Your task to perform on an android device: Find coffee shops on Maps Image 0: 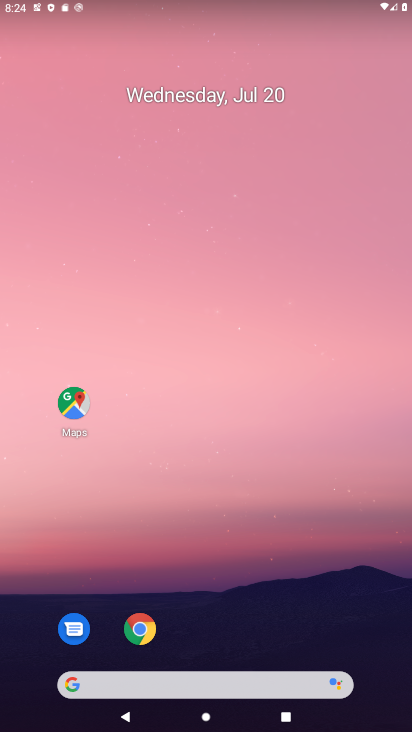
Step 0: drag from (261, 626) to (173, 209)
Your task to perform on an android device: Find coffee shops on Maps Image 1: 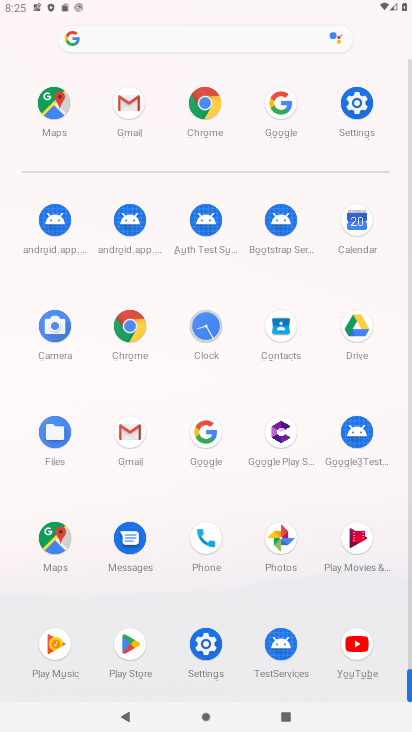
Step 1: click (70, 539)
Your task to perform on an android device: Find coffee shops on Maps Image 2: 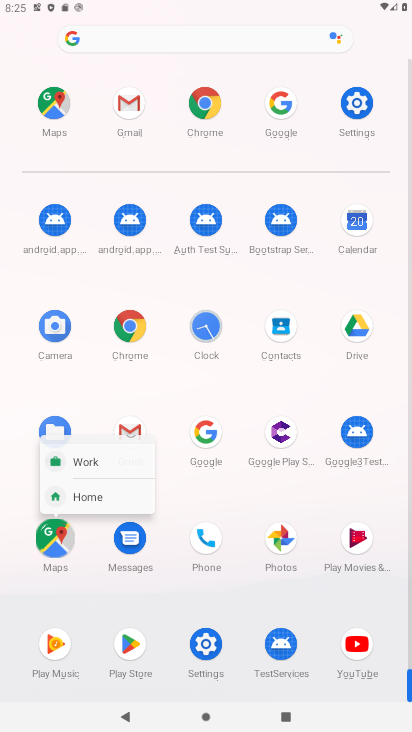
Step 2: click (55, 542)
Your task to perform on an android device: Find coffee shops on Maps Image 3: 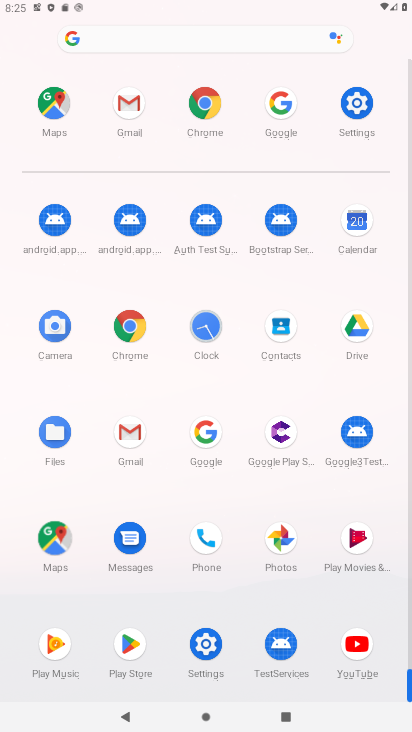
Step 3: click (53, 539)
Your task to perform on an android device: Find coffee shops on Maps Image 4: 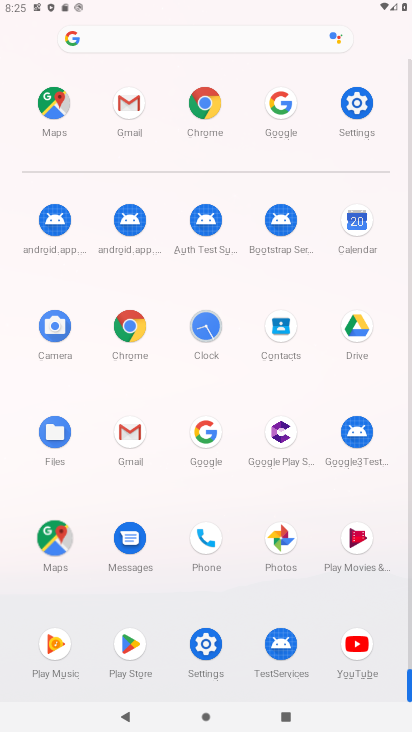
Step 4: click (51, 537)
Your task to perform on an android device: Find coffee shops on Maps Image 5: 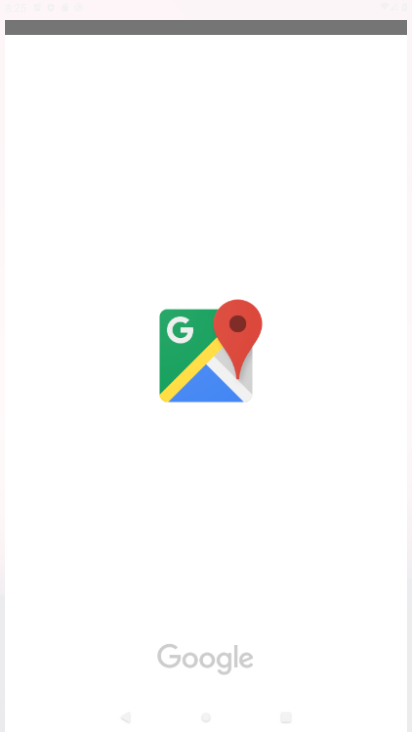
Step 5: click (54, 538)
Your task to perform on an android device: Find coffee shops on Maps Image 6: 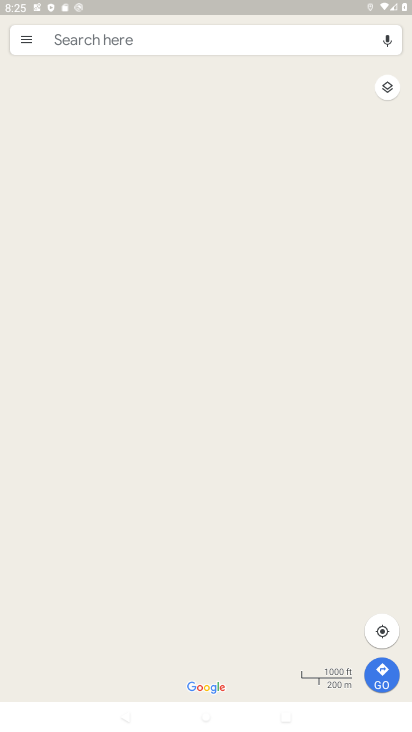
Step 6: click (91, 36)
Your task to perform on an android device: Find coffee shops on Maps Image 7: 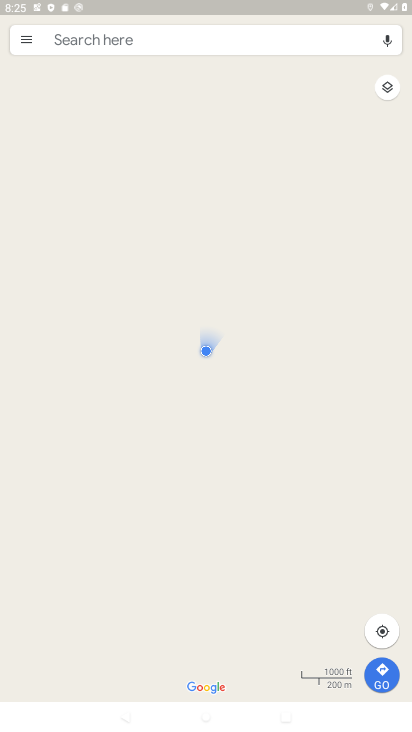
Step 7: click (91, 36)
Your task to perform on an android device: Find coffee shops on Maps Image 8: 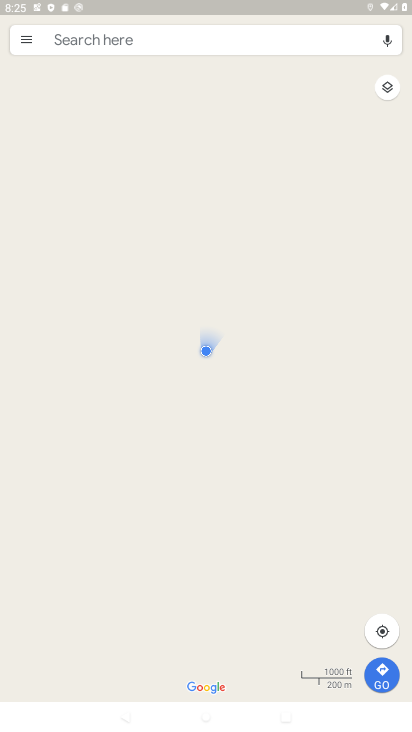
Step 8: click (88, 33)
Your task to perform on an android device: Find coffee shops on Maps Image 9: 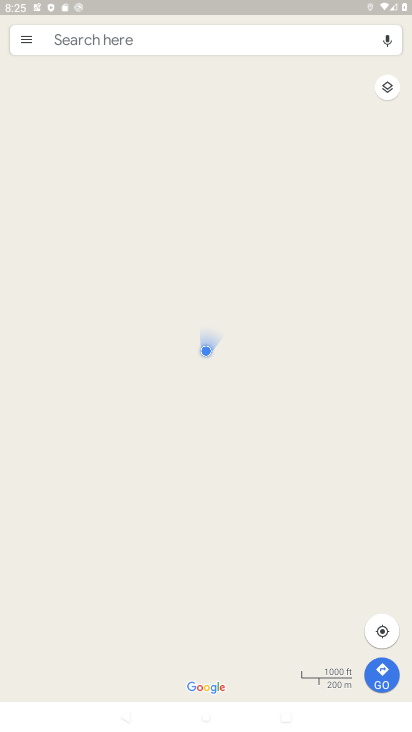
Step 9: click (89, 33)
Your task to perform on an android device: Find coffee shops on Maps Image 10: 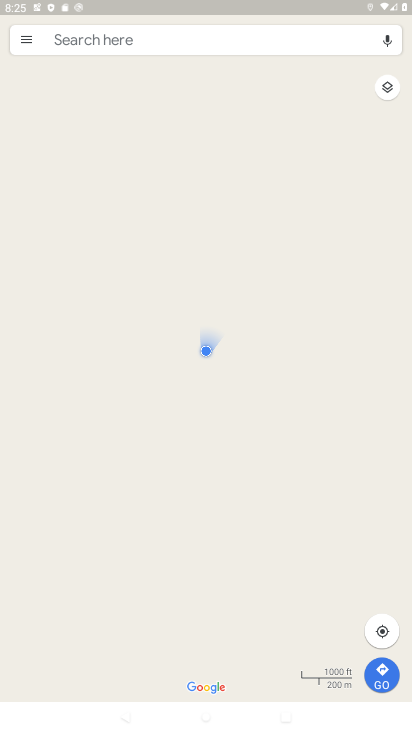
Step 10: click (89, 33)
Your task to perform on an android device: Find coffee shops on Maps Image 11: 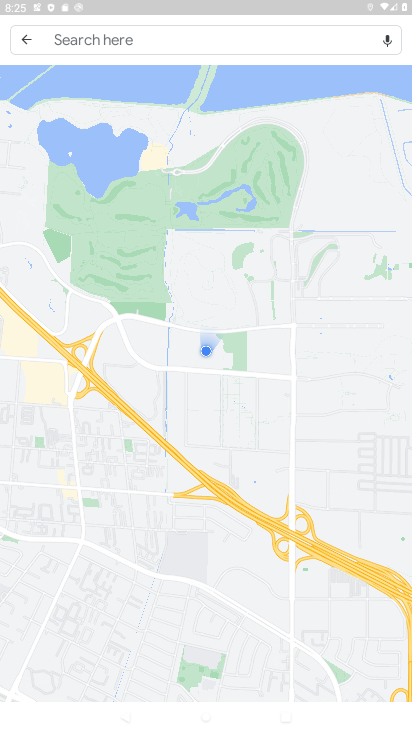
Step 11: click (93, 43)
Your task to perform on an android device: Find coffee shops on Maps Image 12: 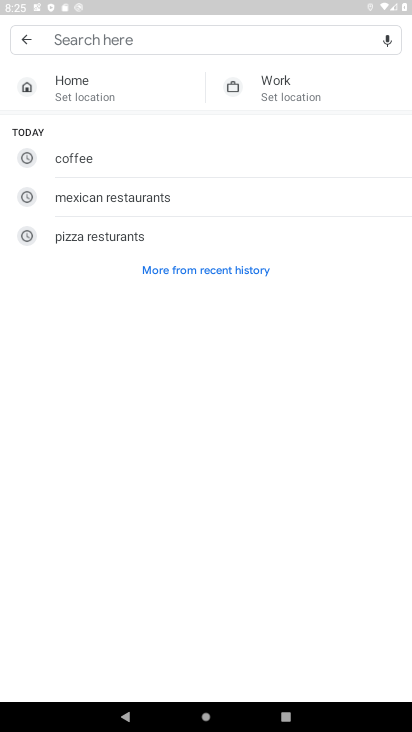
Step 12: click (125, 43)
Your task to perform on an android device: Find coffee shops on Maps Image 13: 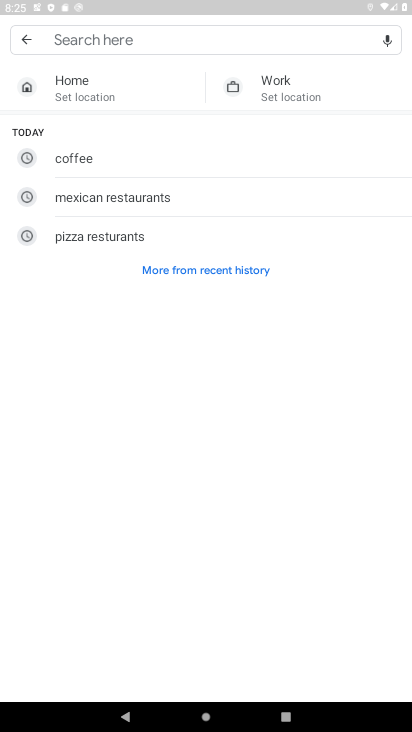
Step 13: click (98, 144)
Your task to perform on an android device: Find coffee shops on Maps Image 14: 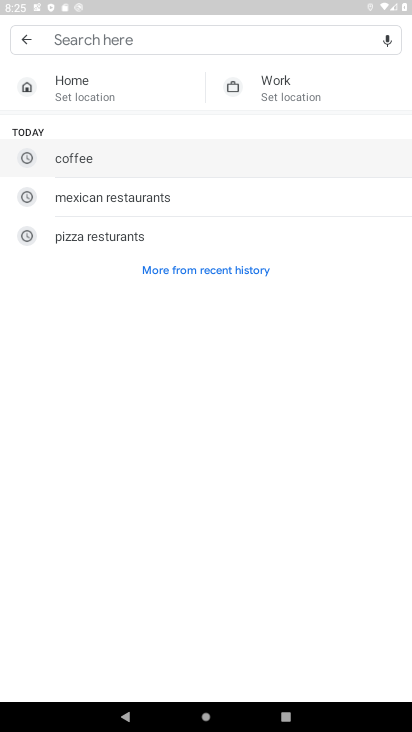
Step 14: click (96, 155)
Your task to perform on an android device: Find coffee shops on Maps Image 15: 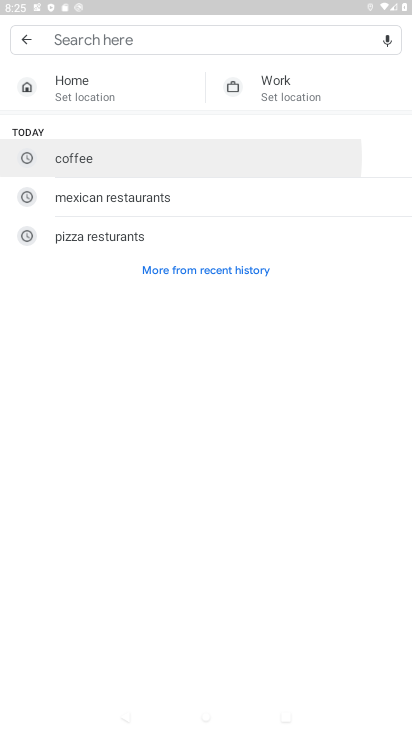
Step 15: click (96, 158)
Your task to perform on an android device: Find coffee shops on Maps Image 16: 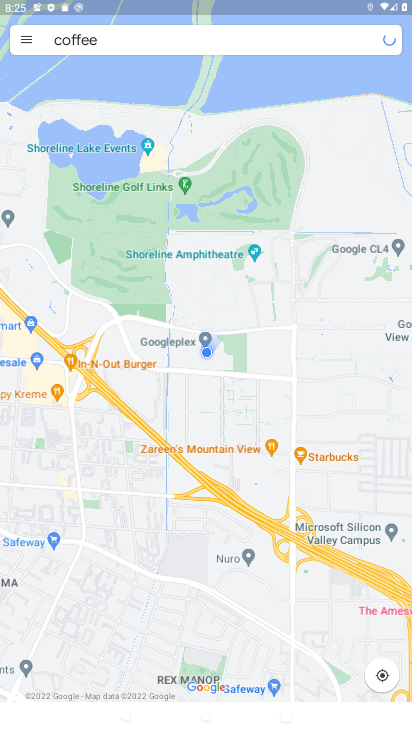
Step 16: click (96, 158)
Your task to perform on an android device: Find coffee shops on Maps Image 17: 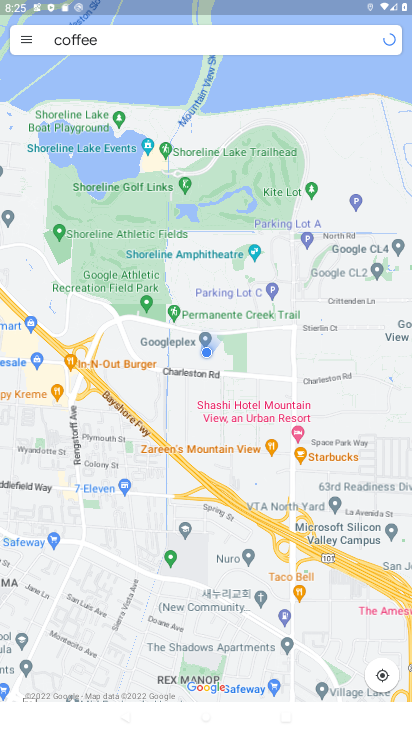
Step 17: task complete